Your task to perform on an android device: see sites visited before in the chrome app Image 0: 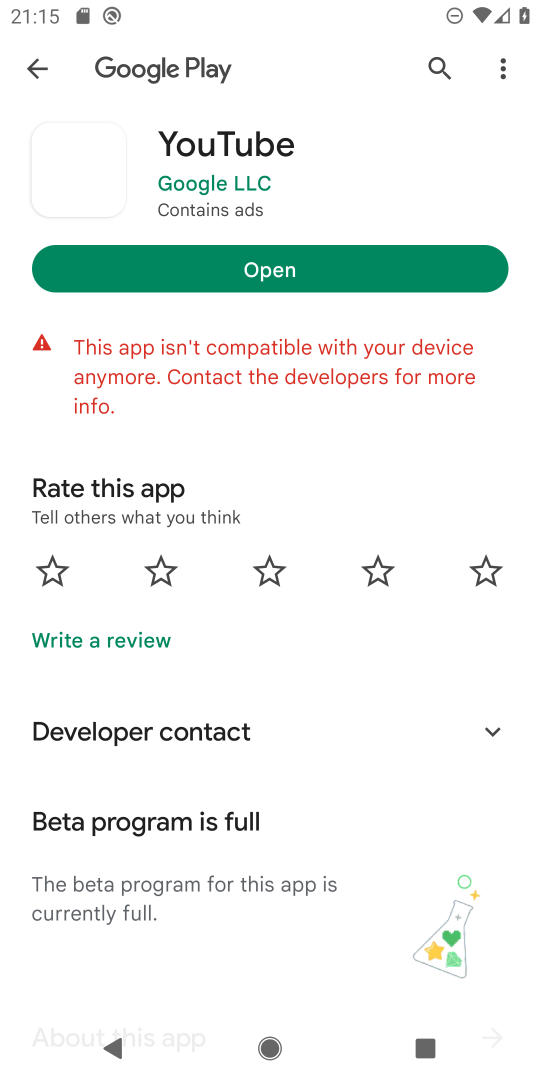
Step 0: press home button
Your task to perform on an android device: see sites visited before in the chrome app Image 1: 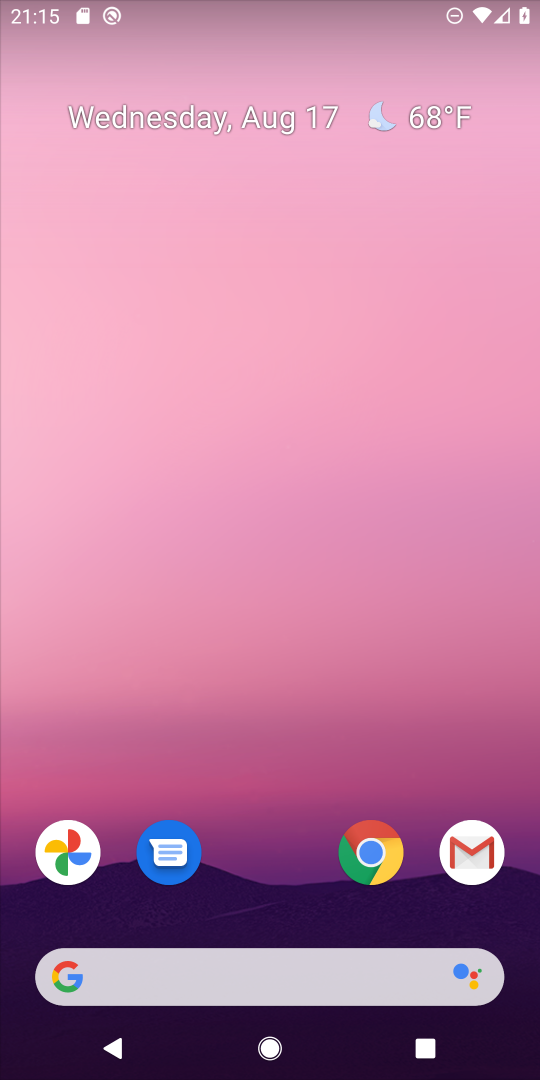
Step 1: click (368, 849)
Your task to perform on an android device: see sites visited before in the chrome app Image 2: 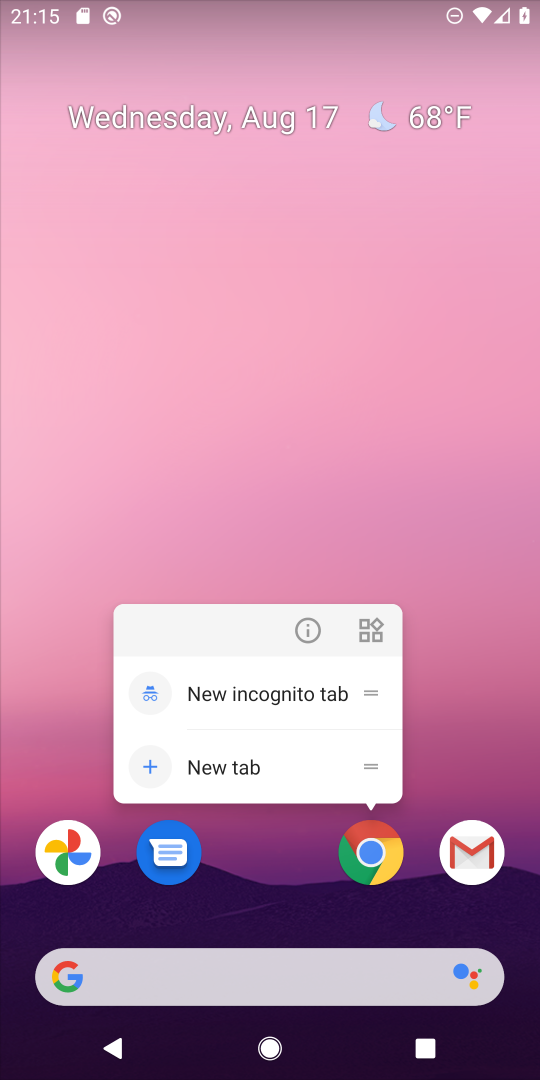
Step 2: click (368, 849)
Your task to perform on an android device: see sites visited before in the chrome app Image 3: 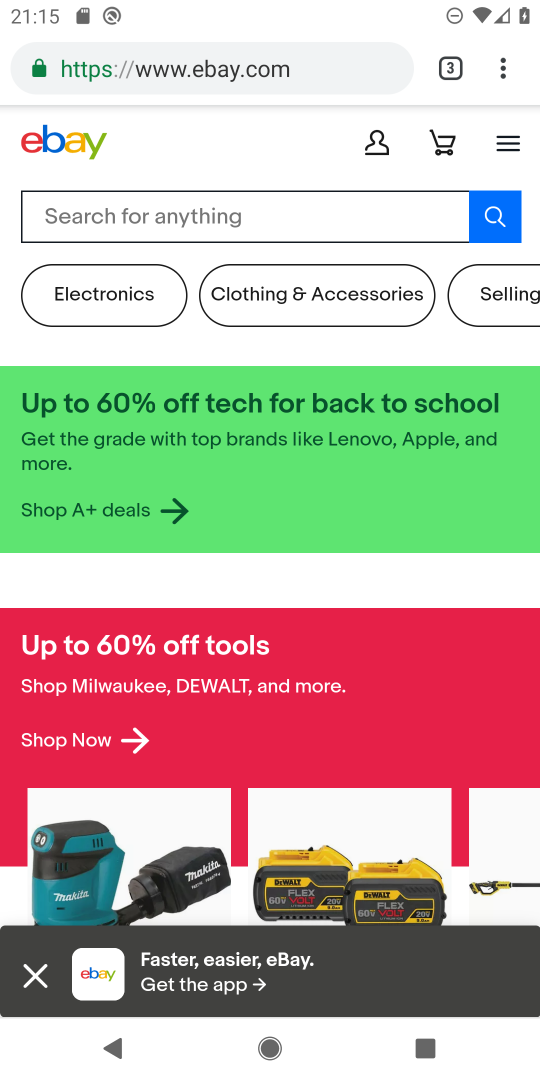
Step 3: click (507, 63)
Your task to perform on an android device: see sites visited before in the chrome app Image 4: 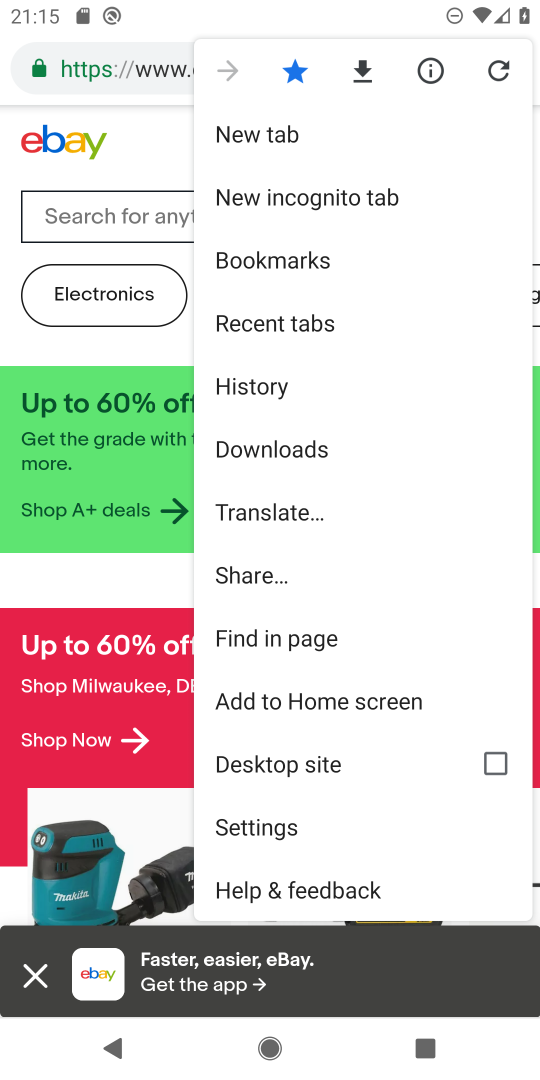
Step 4: click (251, 392)
Your task to perform on an android device: see sites visited before in the chrome app Image 5: 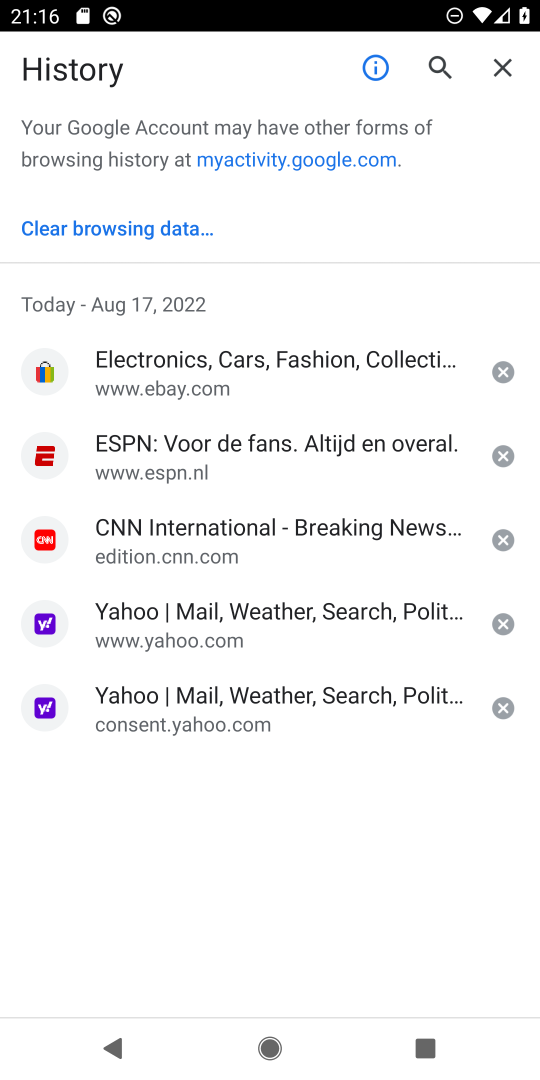
Step 5: task complete